Your task to perform on an android device: What's US dollar exchange rate against the South Korean Won? Image 0: 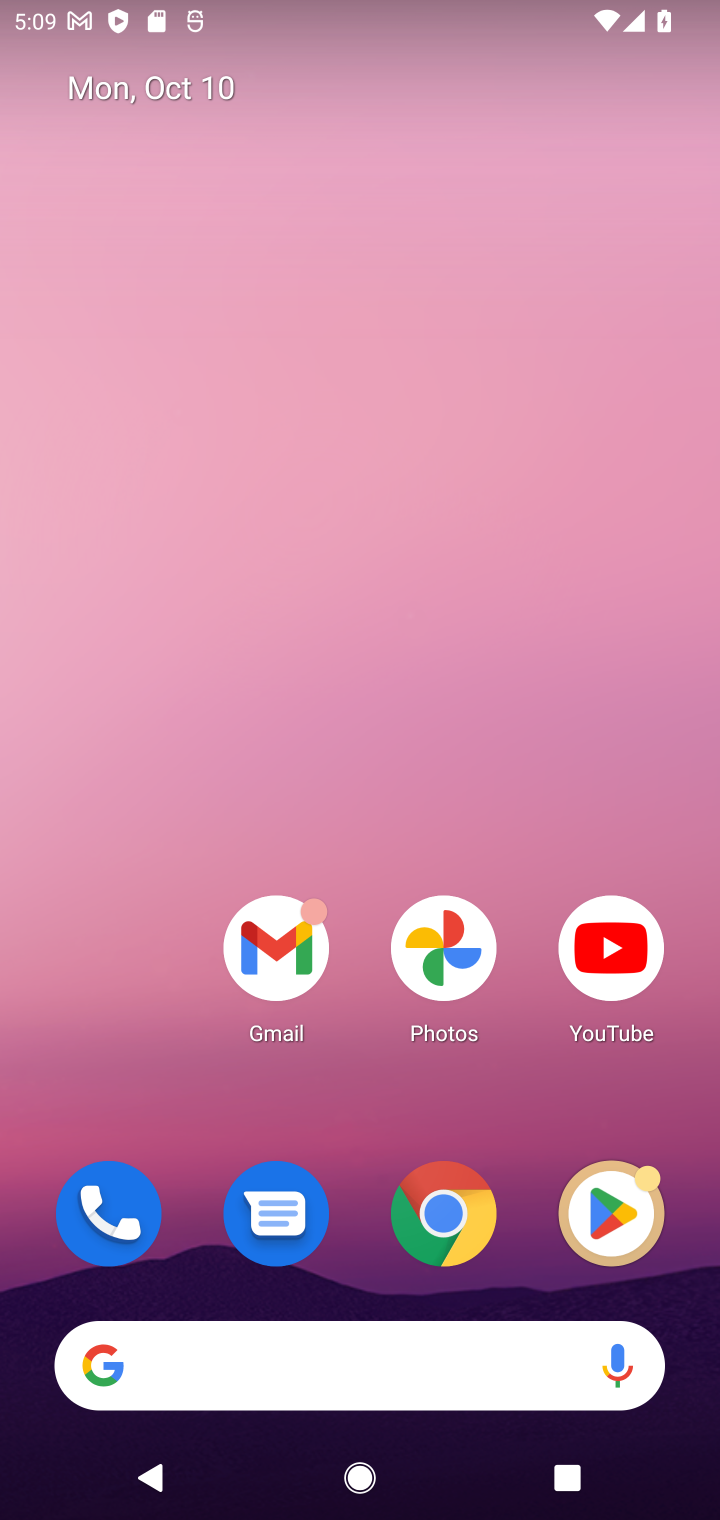
Step 0: click (310, 1378)
Your task to perform on an android device: What's US dollar exchange rate against the South Korean Won? Image 1: 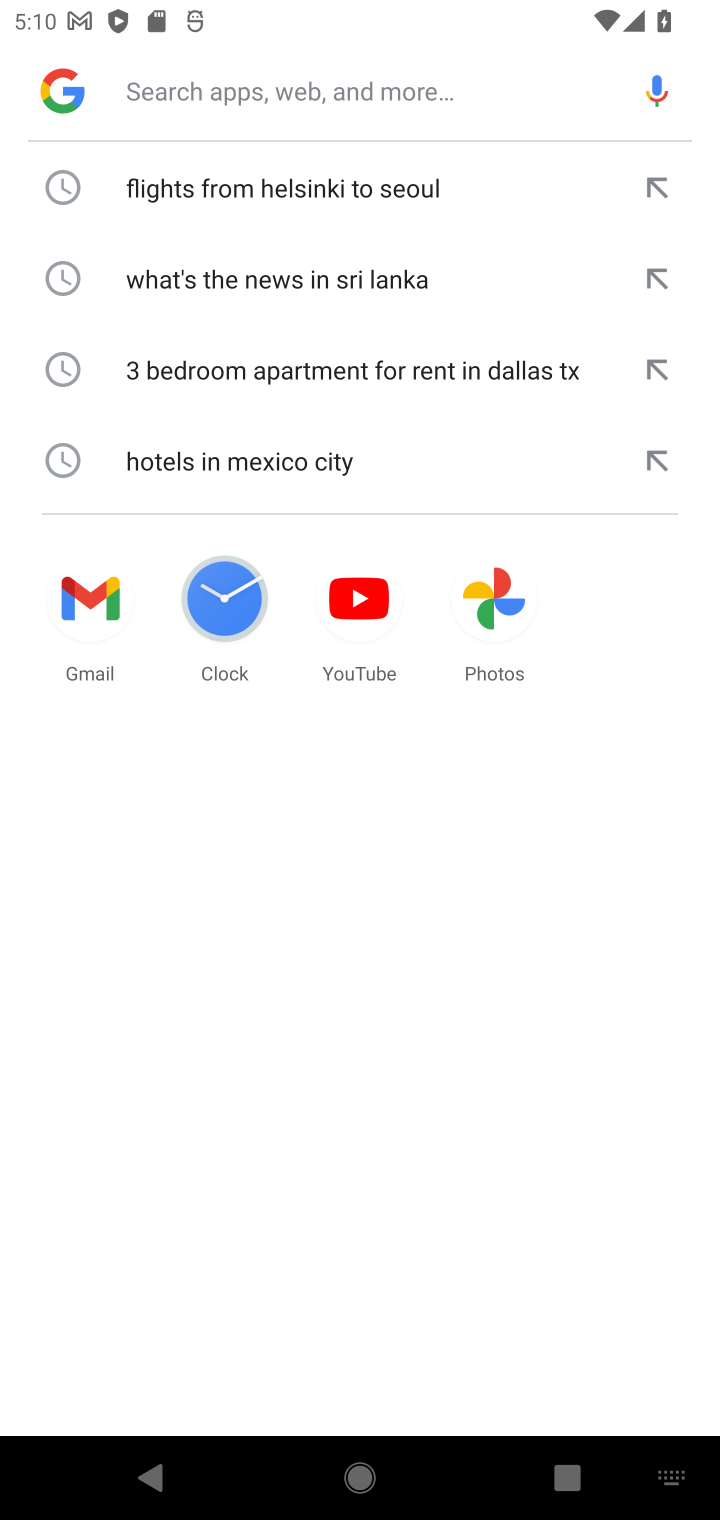
Step 1: type "What's US dollar exchange rate against the South Korean Won?"
Your task to perform on an android device: What's US dollar exchange rate against the South Korean Won? Image 2: 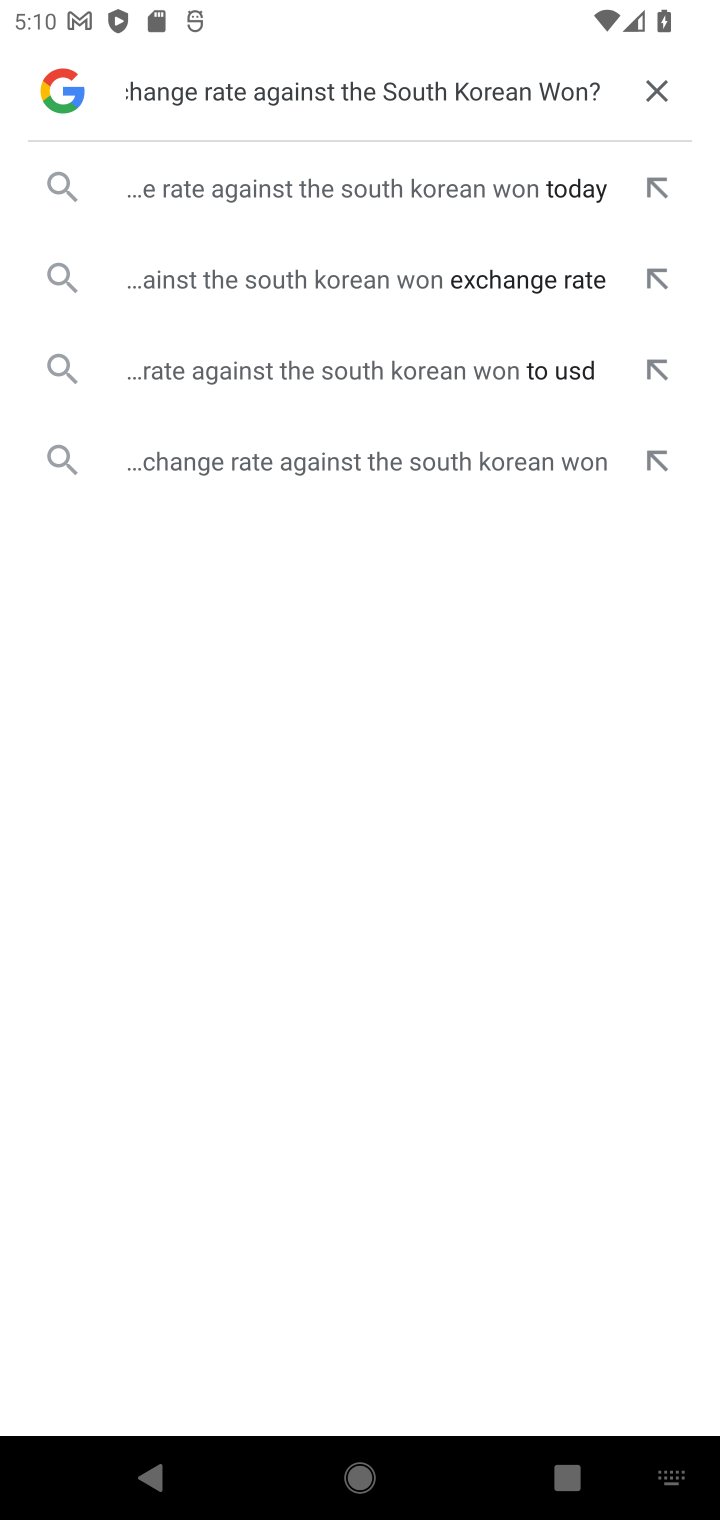
Step 2: click (349, 200)
Your task to perform on an android device: What's US dollar exchange rate against the South Korean Won? Image 3: 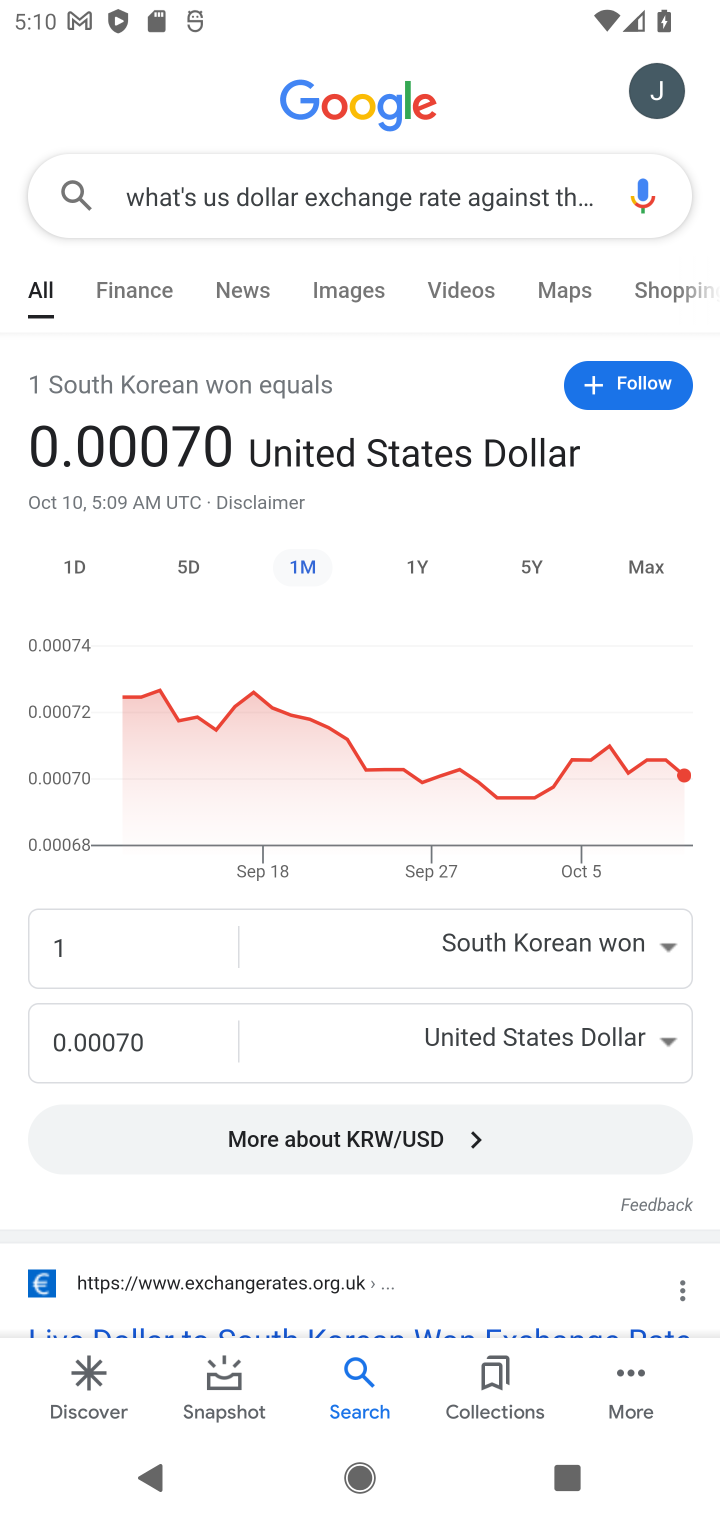
Step 3: task complete